Your task to perform on an android device: Toggle the flashlight Image 0: 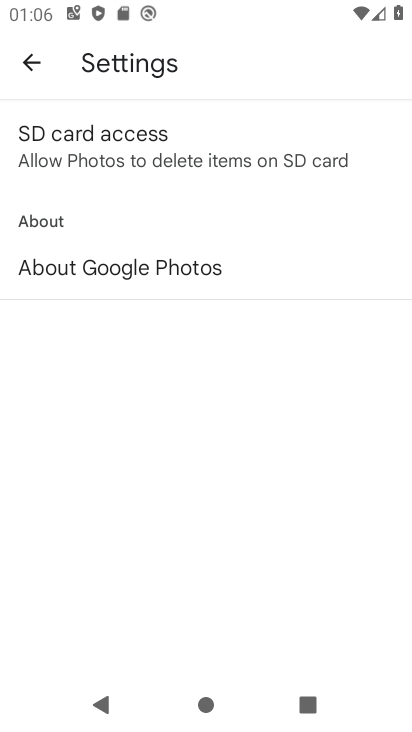
Step 0: press home button
Your task to perform on an android device: Toggle the flashlight Image 1: 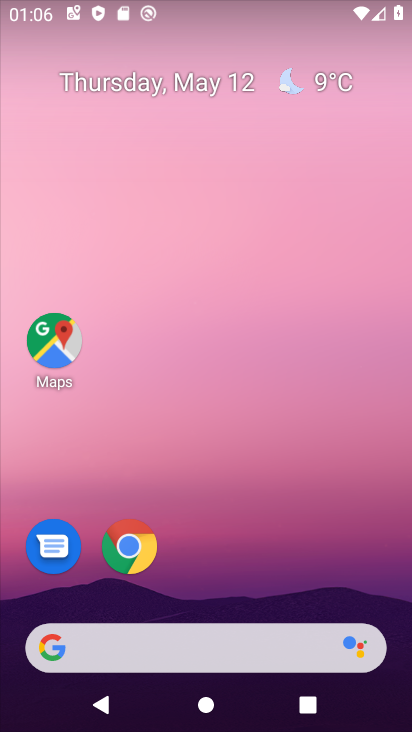
Step 1: drag from (208, 587) to (240, 166)
Your task to perform on an android device: Toggle the flashlight Image 2: 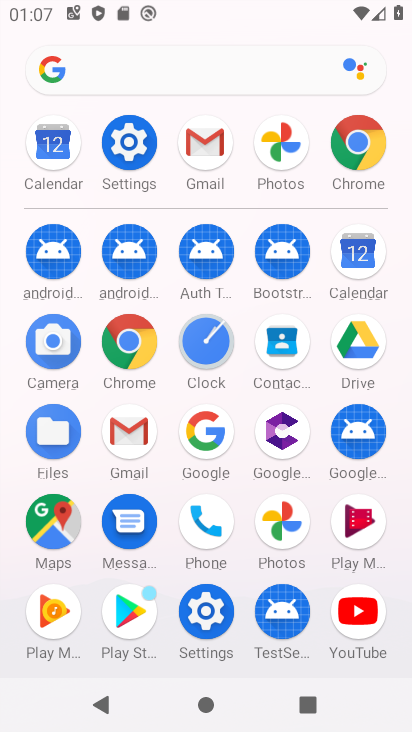
Step 2: click (133, 152)
Your task to perform on an android device: Toggle the flashlight Image 3: 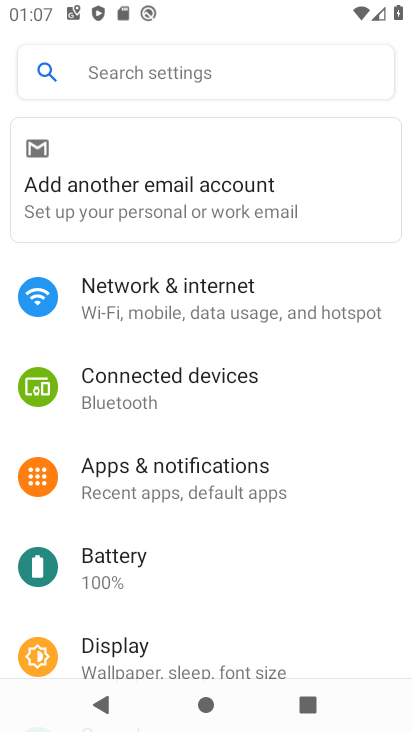
Step 3: drag from (161, 478) to (164, 252)
Your task to perform on an android device: Toggle the flashlight Image 4: 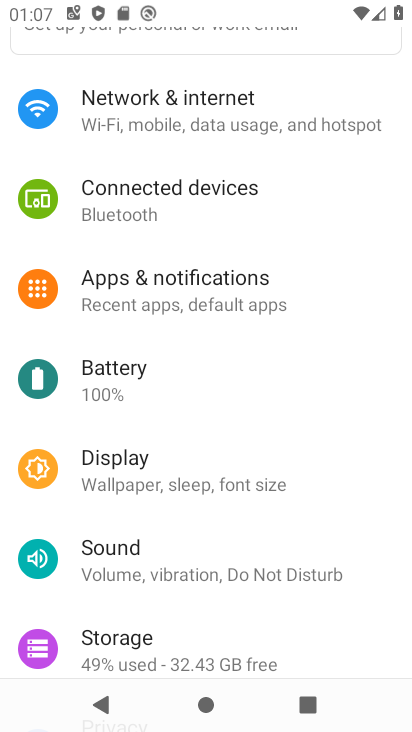
Step 4: click (182, 467)
Your task to perform on an android device: Toggle the flashlight Image 5: 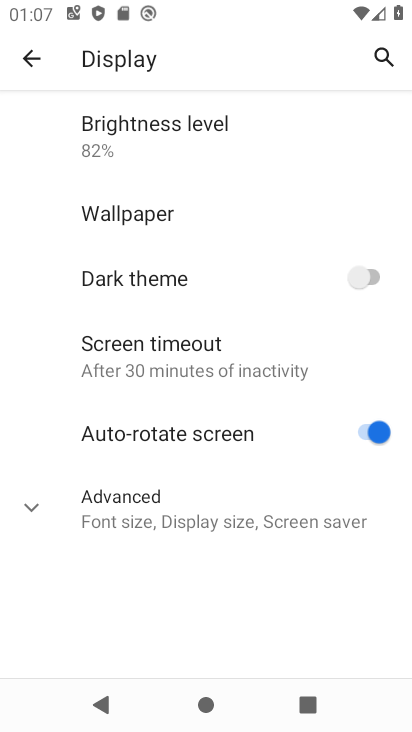
Step 5: task complete